Your task to perform on an android device: Open location settings Image 0: 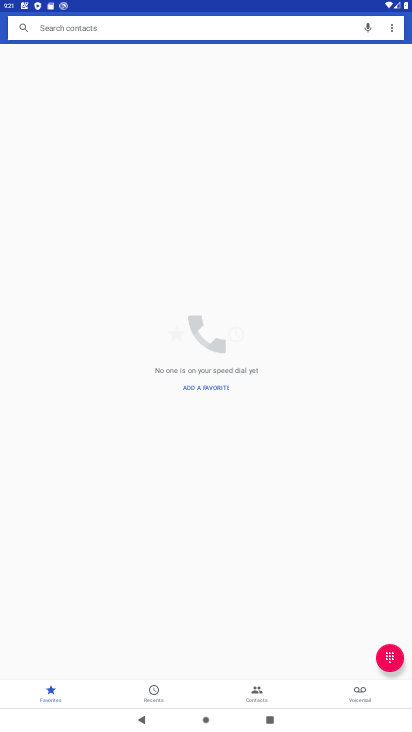
Step 0: press home button
Your task to perform on an android device: Open location settings Image 1: 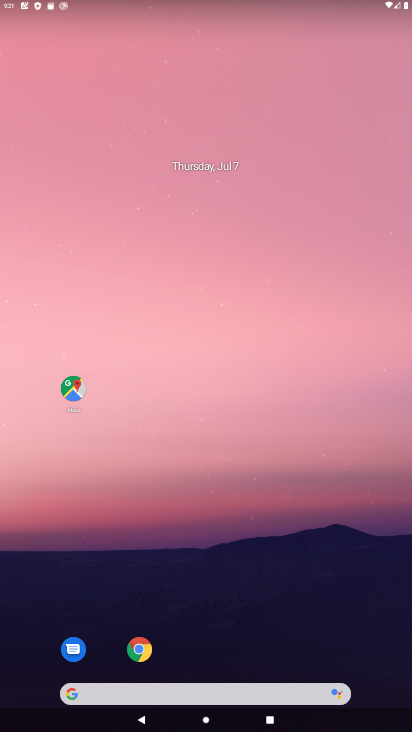
Step 1: drag from (237, 604) to (300, 152)
Your task to perform on an android device: Open location settings Image 2: 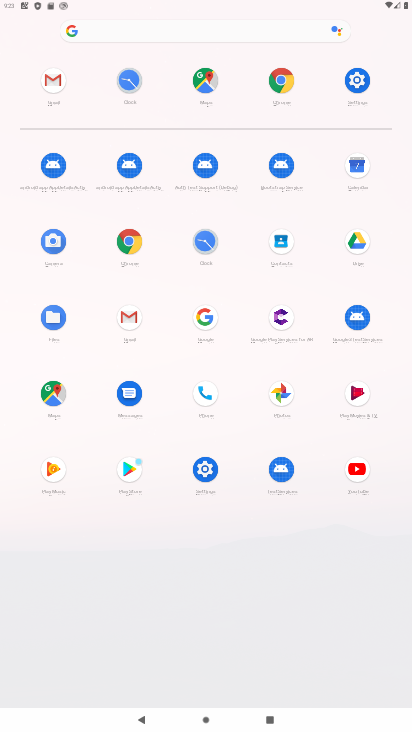
Step 2: click (208, 473)
Your task to perform on an android device: Open location settings Image 3: 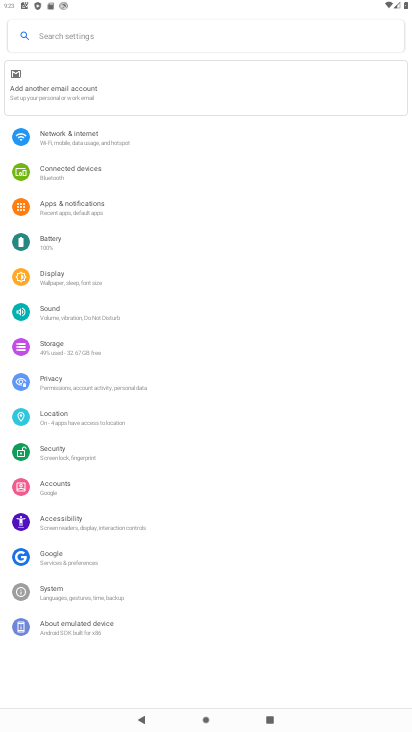
Step 3: click (75, 413)
Your task to perform on an android device: Open location settings Image 4: 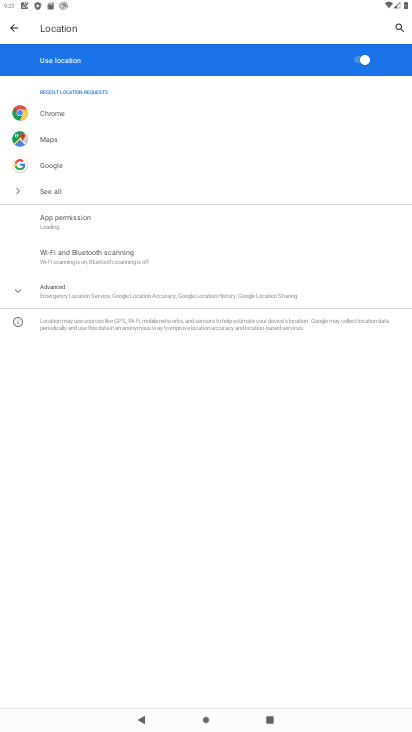
Step 4: task complete